Your task to perform on an android device: Go to settings Image 0: 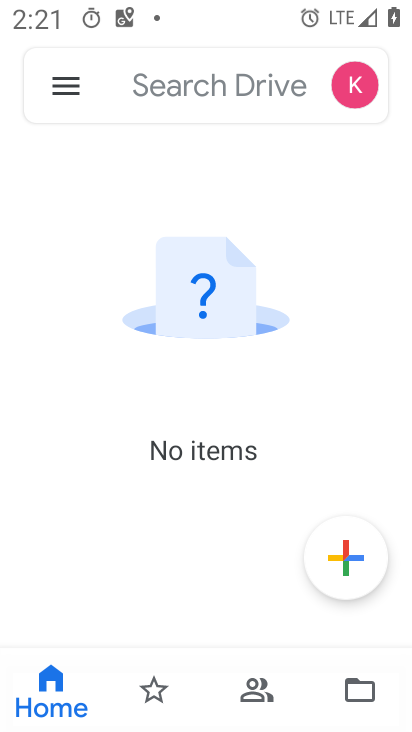
Step 0: press home button
Your task to perform on an android device: Go to settings Image 1: 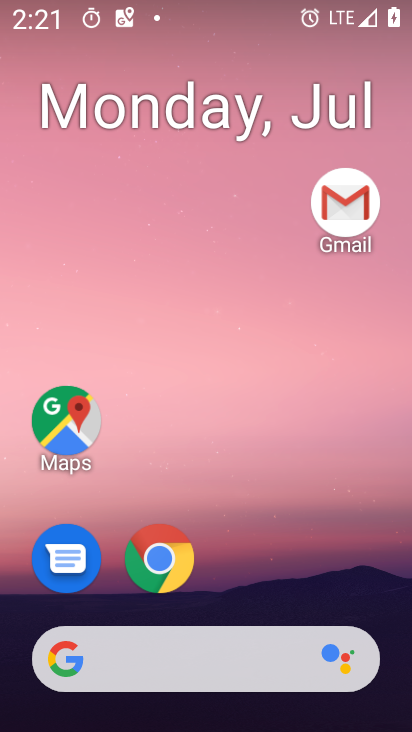
Step 1: drag from (318, 562) to (332, 152)
Your task to perform on an android device: Go to settings Image 2: 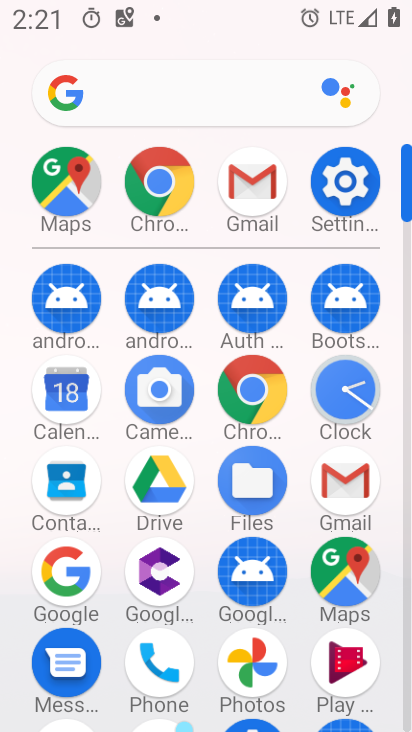
Step 2: click (348, 188)
Your task to perform on an android device: Go to settings Image 3: 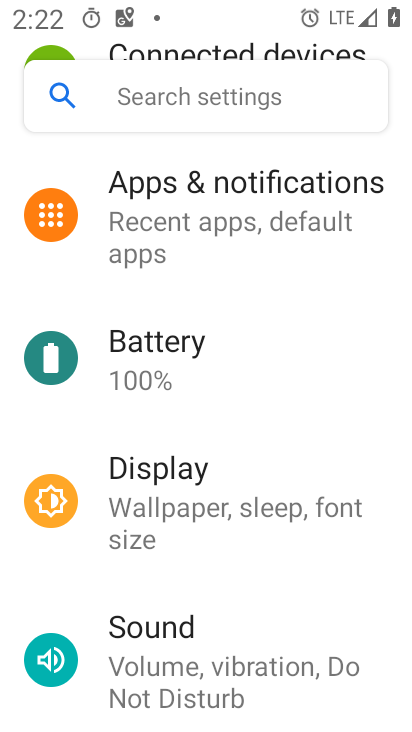
Step 3: task complete